Your task to perform on an android device: Go to internet settings Image 0: 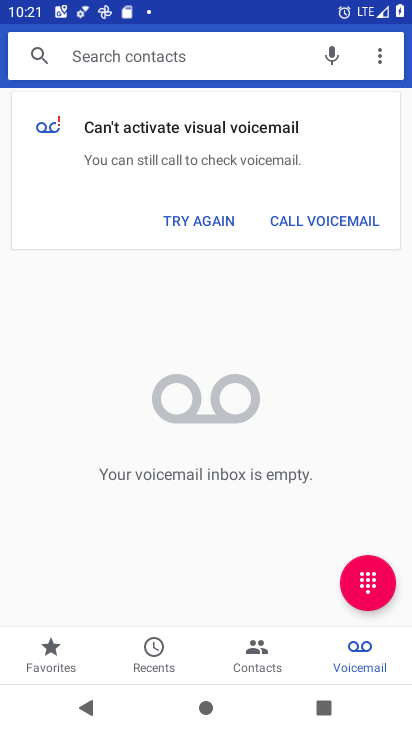
Step 0: press home button
Your task to perform on an android device: Go to internet settings Image 1: 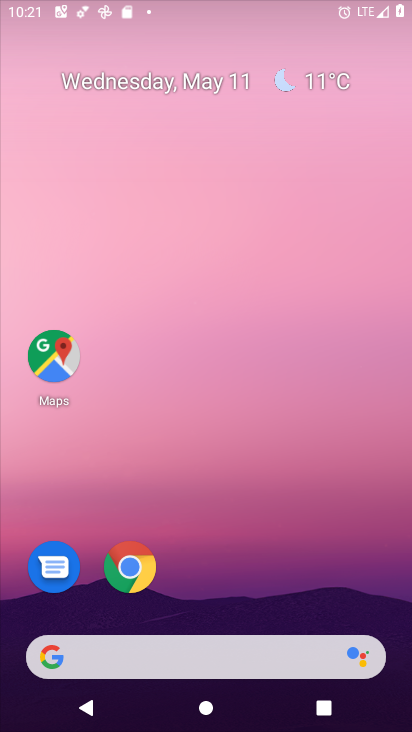
Step 1: drag from (277, 482) to (242, 103)
Your task to perform on an android device: Go to internet settings Image 2: 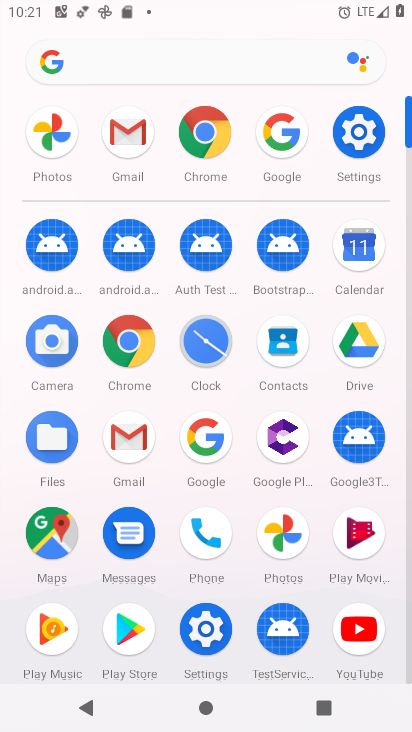
Step 2: click (360, 141)
Your task to perform on an android device: Go to internet settings Image 3: 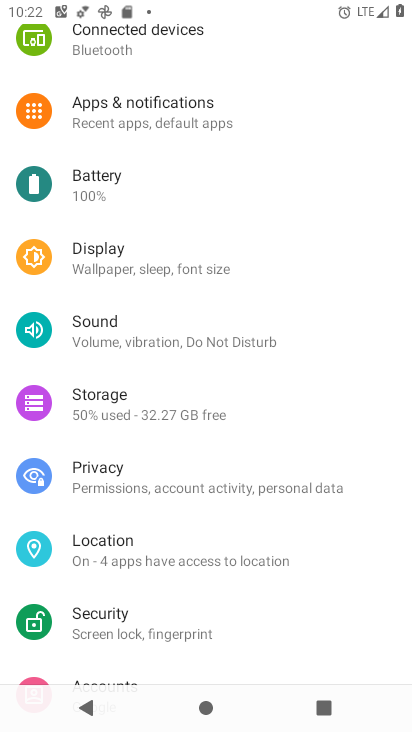
Step 3: drag from (241, 140) to (232, 579)
Your task to perform on an android device: Go to internet settings Image 4: 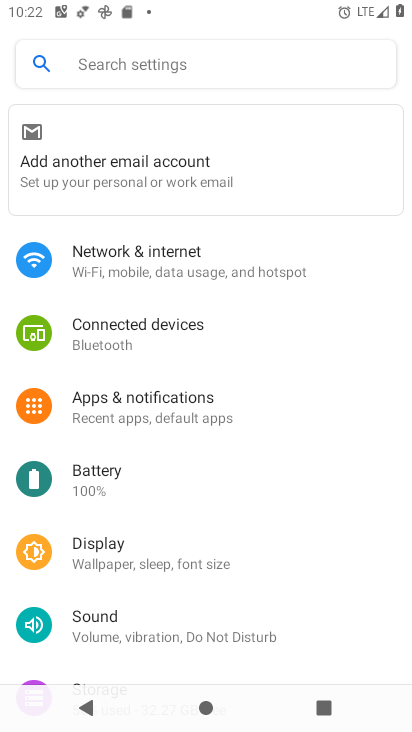
Step 4: click (175, 251)
Your task to perform on an android device: Go to internet settings Image 5: 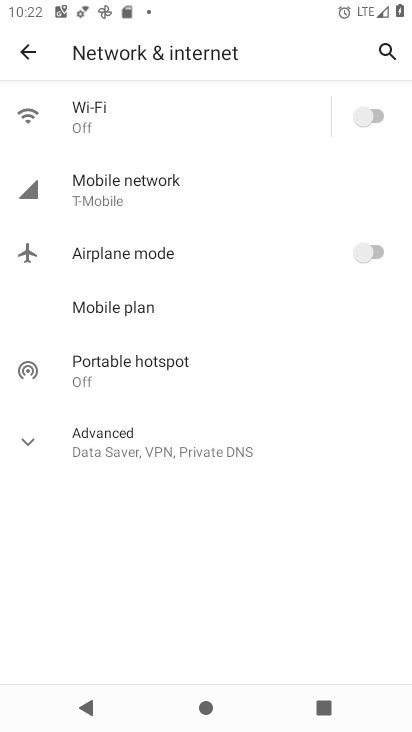
Step 5: task complete